Your task to perform on an android device: Open Maps and search for coffee Image 0: 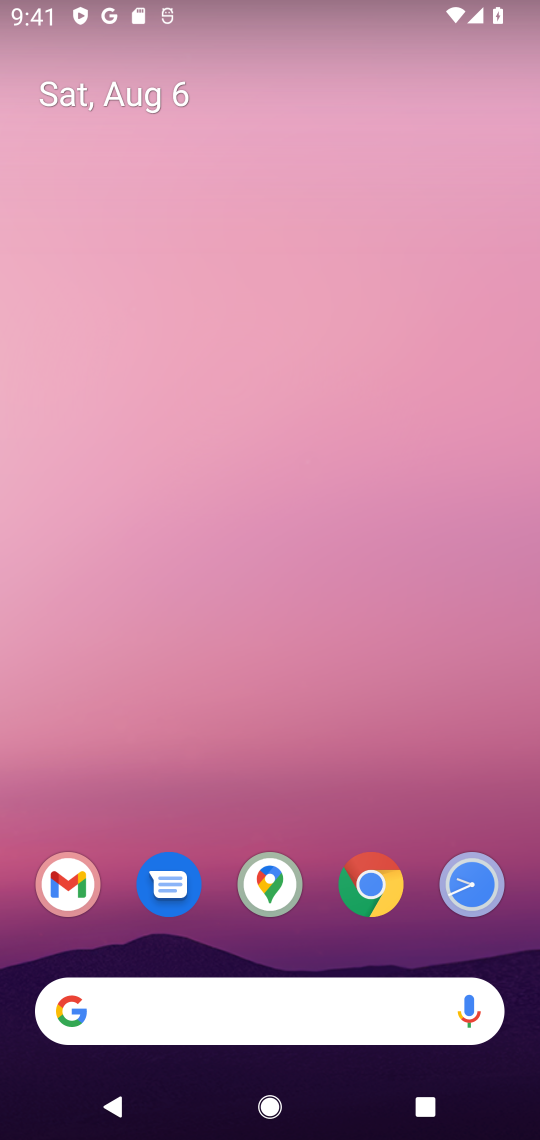
Step 0: click (270, 879)
Your task to perform on an android device: Open Maps and search for coffee Image 1: 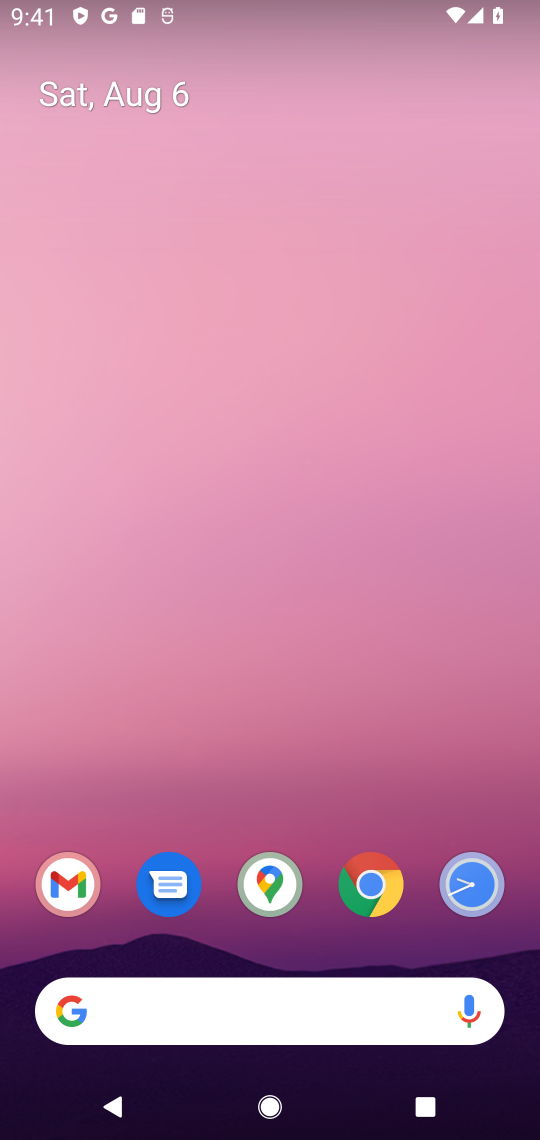
Step 1: click (270, 879)
Your task to perform on an android device: Open Maps and search for coffee Image 2: 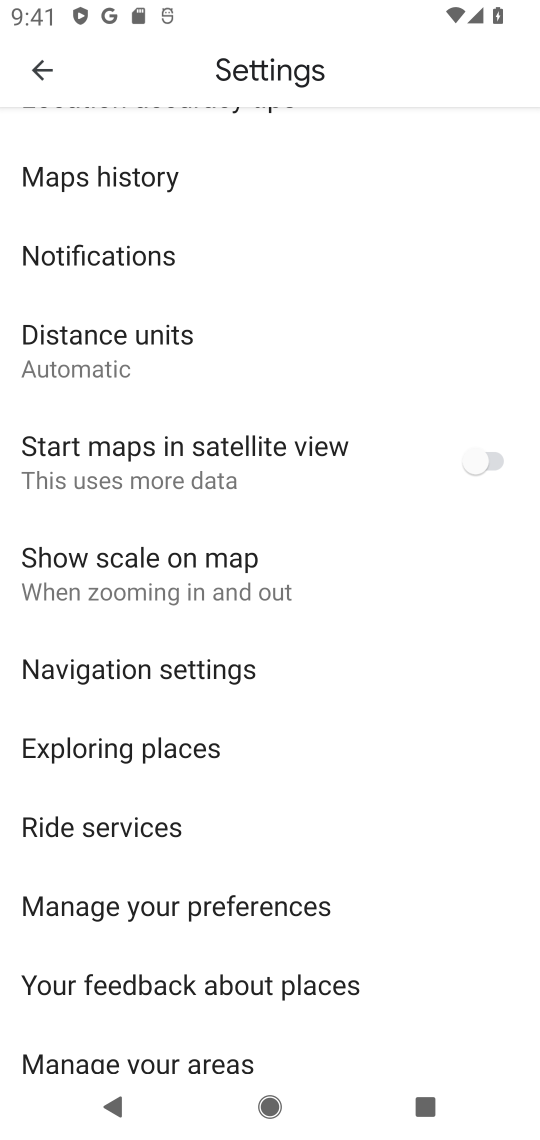
Step 2: press back button
Your task to perform on an android device: Open Maps and search for coffee Image 3: 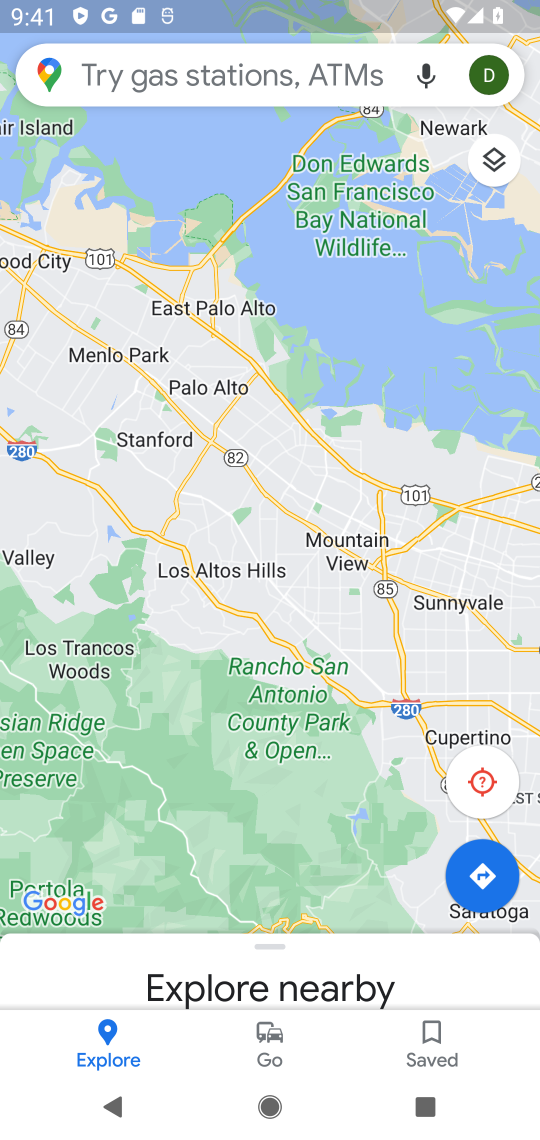
Step 3: click (198, 65)
Your task to perform on an android device: Open Maps and search for coffee Image 4: 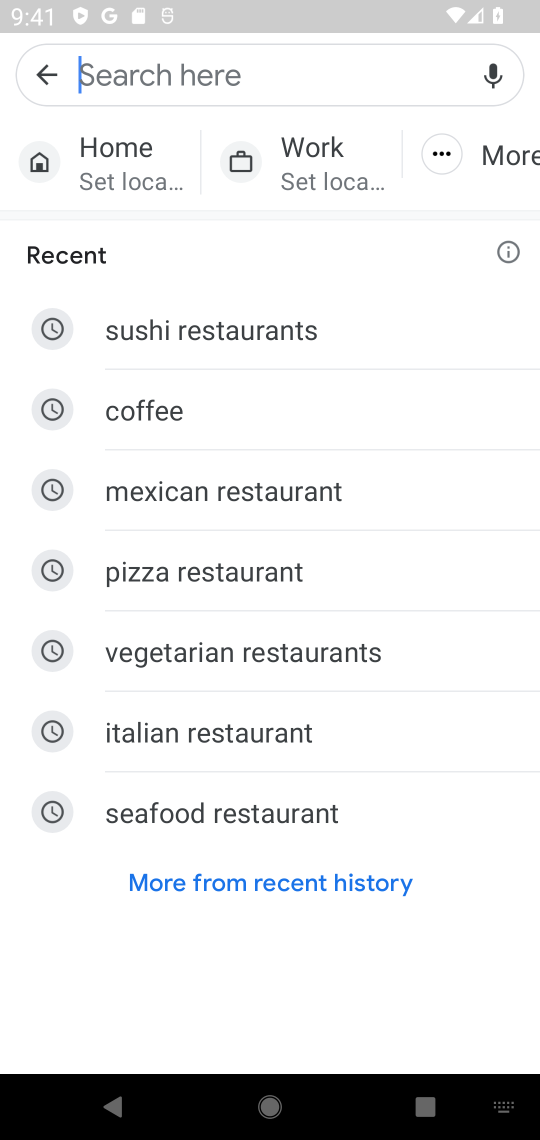
Step 4: type "coffee"
Your task to perform on an android device: Open Maps and search for coffee Image 5: 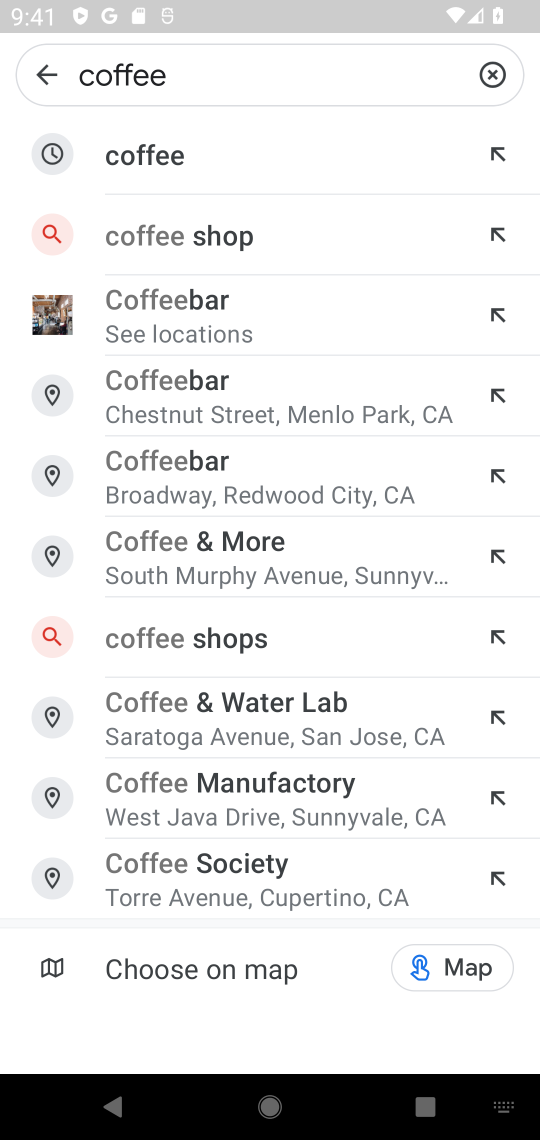
Step 5: click (172, 175)
Your task to perform on an android device: Open Maps and search for coffee Image 6: 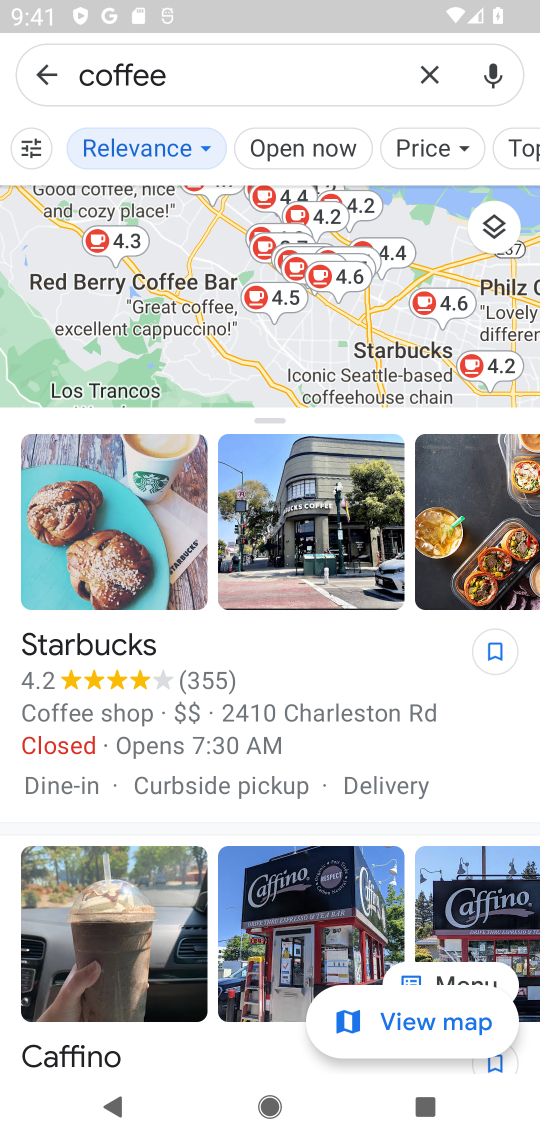
Step 6: task complete